Your task to perform on an android device: toggle improve location accuracy Image 0: 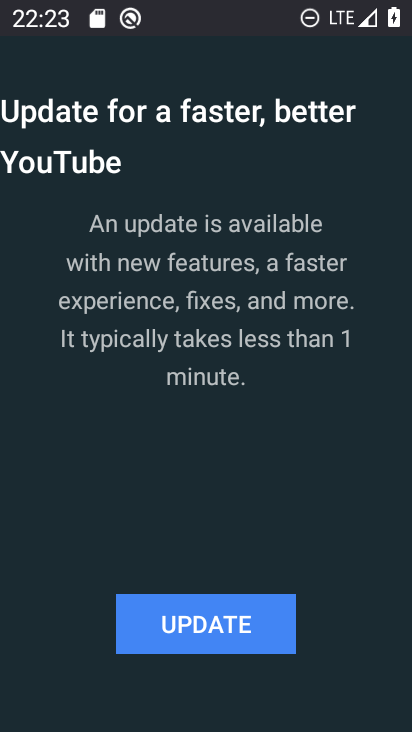
Step 0: press home button
Your task to perform on an android device: toggle improve location accuracy Image 1: 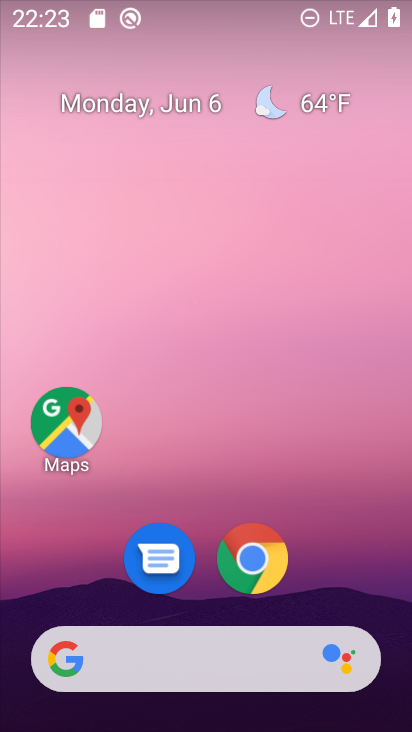
Step 1: drag from (206, 722) to (169, 187)
Your task to perform on an android device: toggle improve location accuracy Image 2: 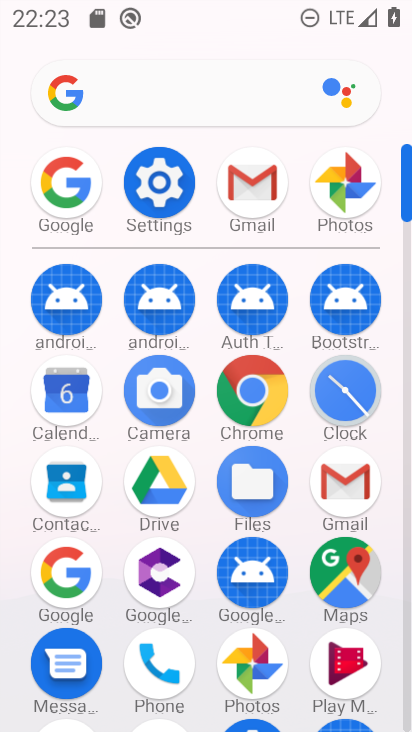
Step 2: click (149, 176)
Your task to perform on an android device: toggle improve location accuracy Image 3: 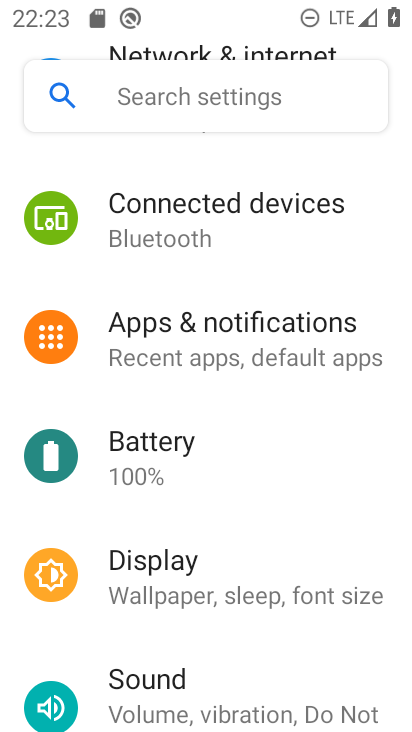
Step 3: drag from (156, 666) to (158, 326)
Your task to perform on an android device: toggle improve location accuracy Image 4: 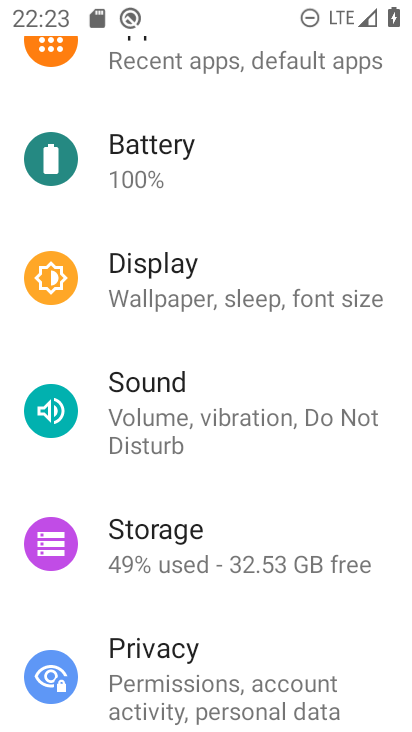
Step 4: drag from (156, 679) to (169, 399)
Your task to perform on an android device: toggle improve location accuracy Image 5: 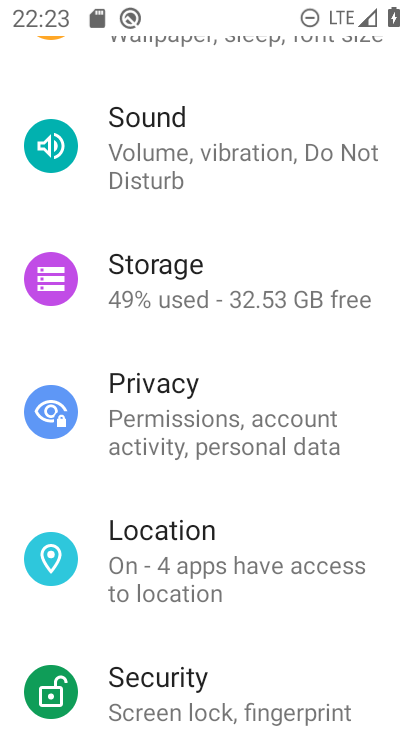
Step 5: click (175, 554)
Your task to perform on an android device: toggle improve location accuracy Image 6: 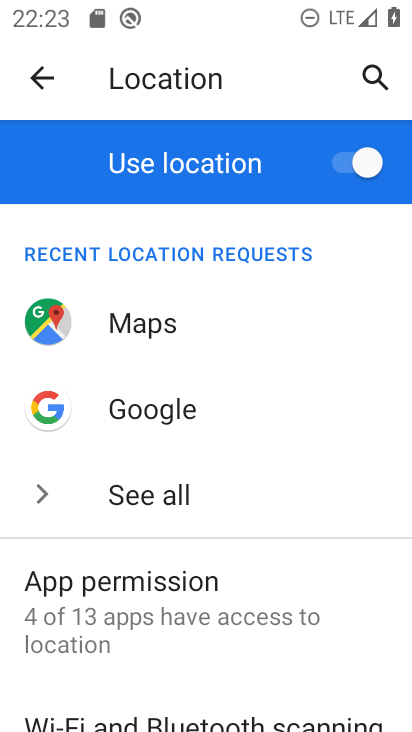
Step 6: drag from (146, 715) to (142, 233)
Your task to perform on an android device: toggle improve location accuracy Image 7: 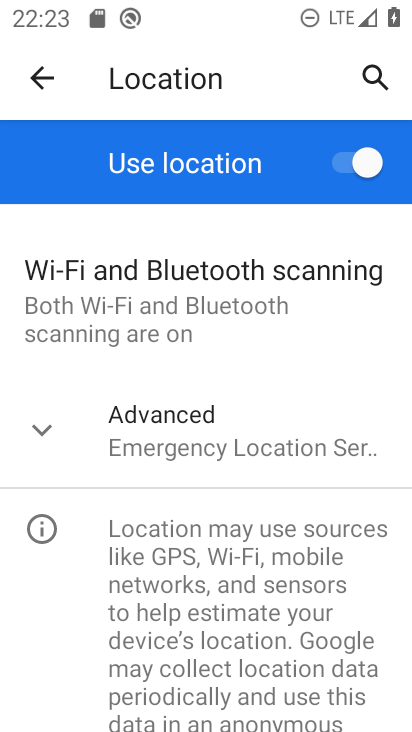
Step 7: click (158, 438)
Your task to perform on an android device: toggle improve location accuracy Image 8: 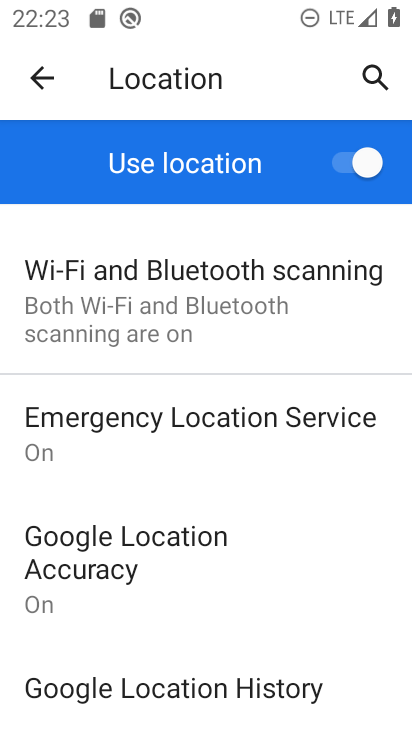
Step 8: drag from (138, 657) to (138, 394)
Your task to perform on an android device: toggle improve location accuracy Image 9: 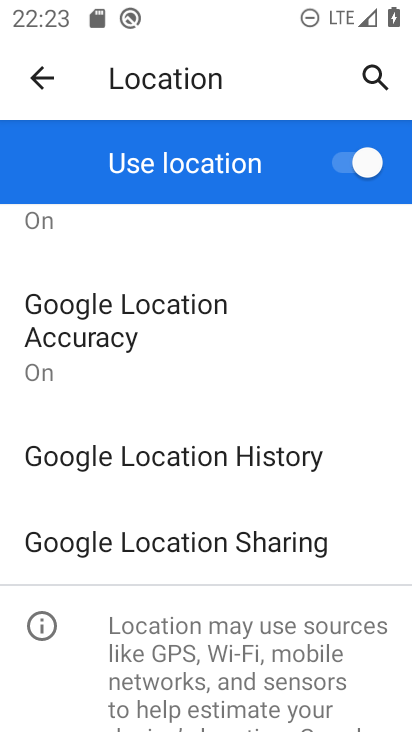
Step 9: click (165, 306)
Your task to perform on an android device: toggle improve location accuracy Image 10: 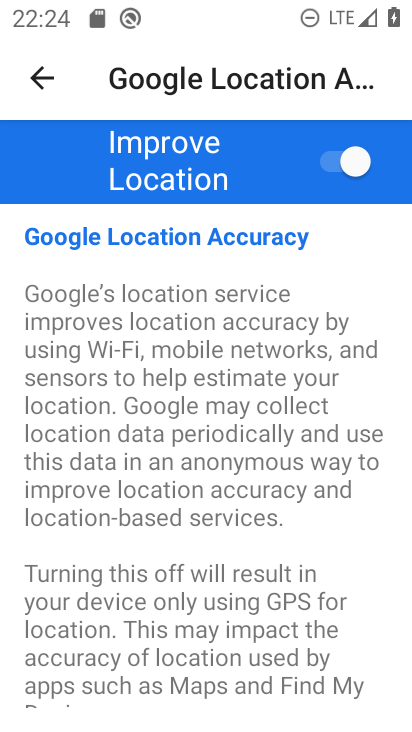
Step 10: click (334, 155)
Your task to perform on an android device: toggle improve location accuracy Image 11: 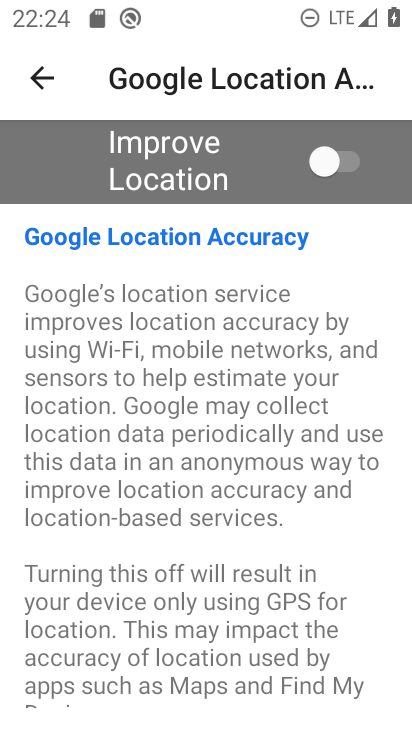
Step 11: task complete